Your task to perform on an android device: Go to Google Image 0: 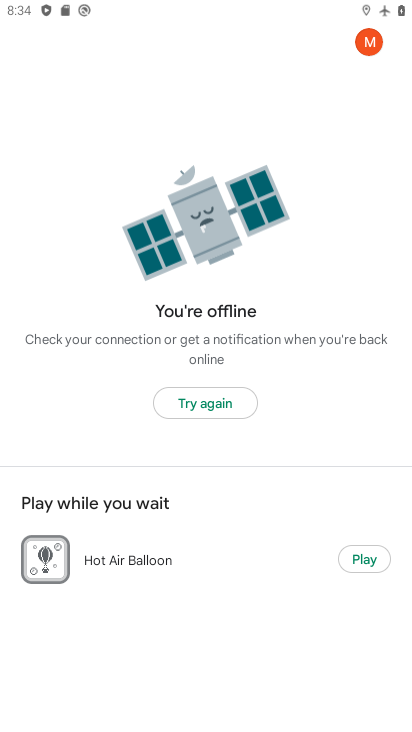
Step 0: press home button
Your task to perform on an android device: Go to Google Image 1: 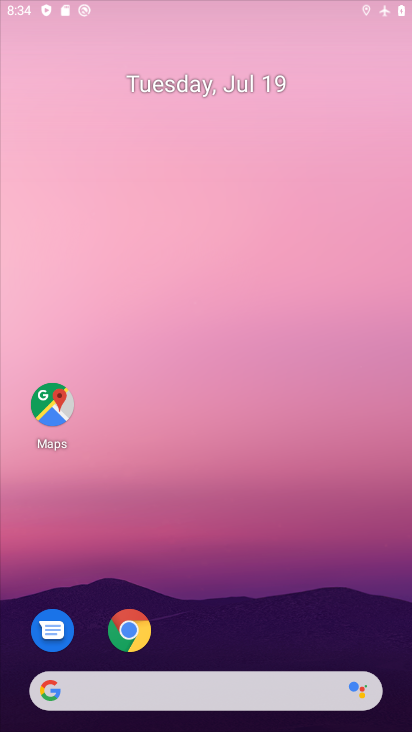
Step 1: drag from (220, 633) to (225, 114)
Your task to perform on an android device: Go to Google Image 2: 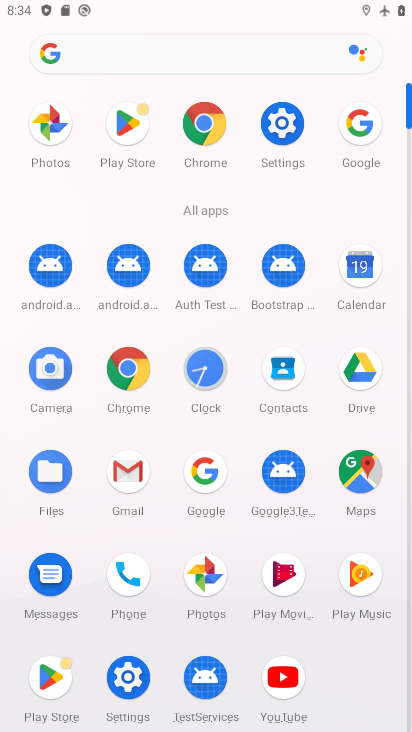
Step 2: click (207, 474)
Your task to perform on an android device: Go to Google Image 3: 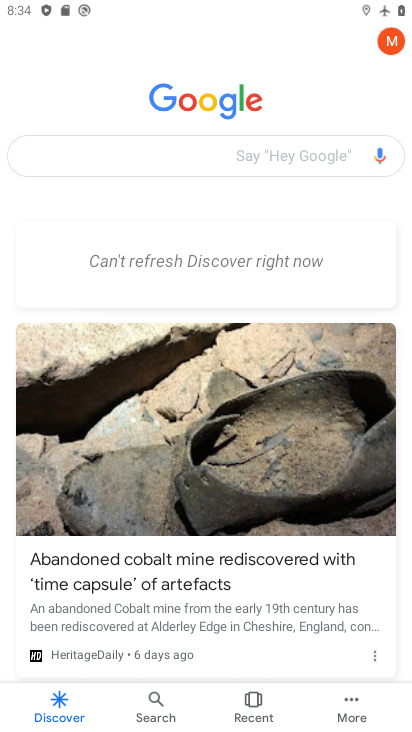
Step 3: task complete